Your task to perform on an android device: Open Android settings Image 0: 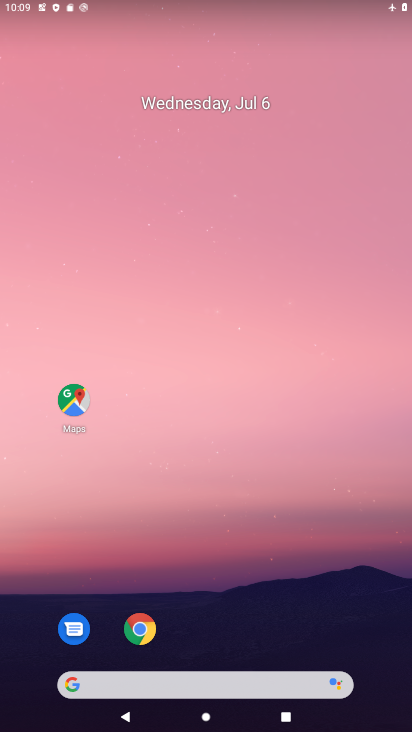
Step 0: drag from (198, 641) to (197, 133)
Your task to perform on an android device: Open Android settings Image 1: 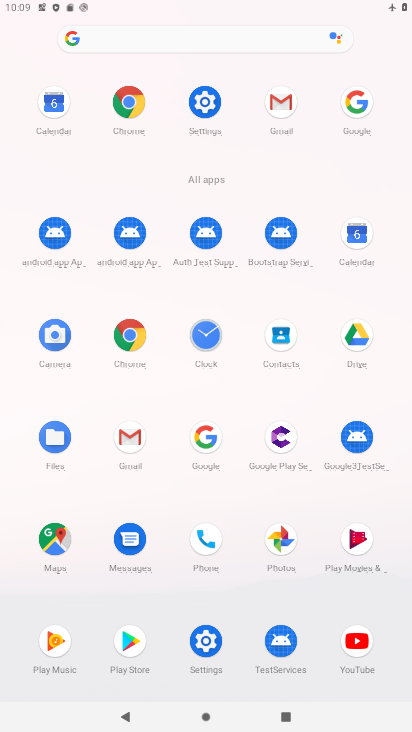
Step 1: click (200, 101)
Your task to perform on an android device: Open Android settings Image 2: 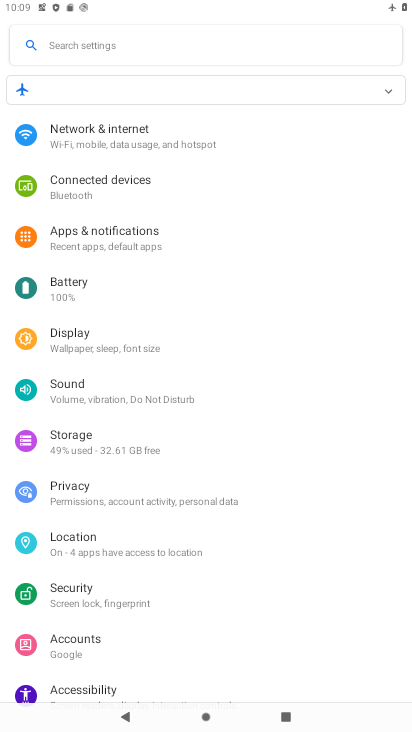
Step 2: task complete